Your task to perform on an android device: Is it going to rain today? Image 0: 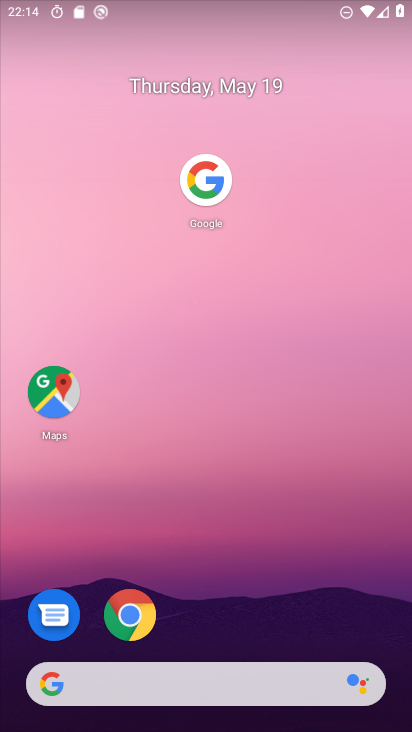
Step 0: click (209, 678)
Your task to perform on an android device: Is it going to rain today? Image 1: 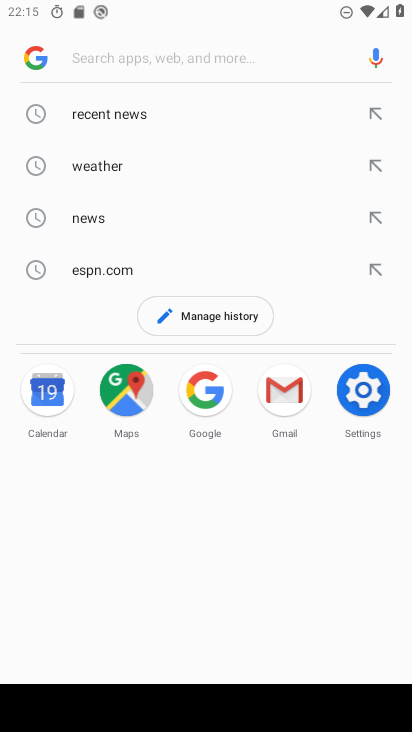
Step 1: type "is it goin to rain today"
Your task to perform on an android device: Is it going to rain today? Image 2: 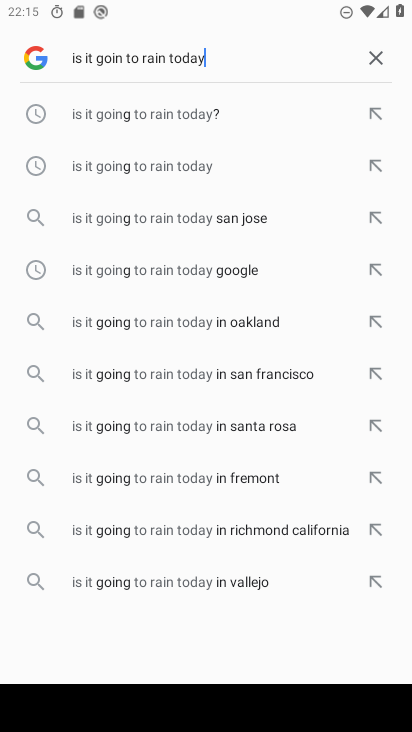
Step 2: click (166, 113)
Your task to perform on an android device: Is it going to rain today? Image 3: 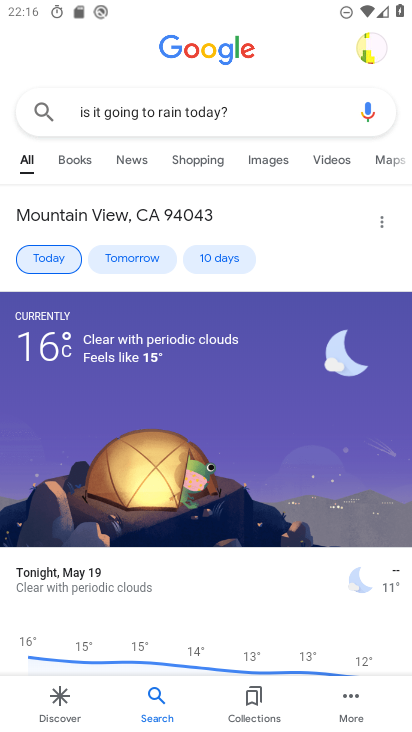
Step 3: task complete